Your task to perform on an android device: add a contact Image 0: 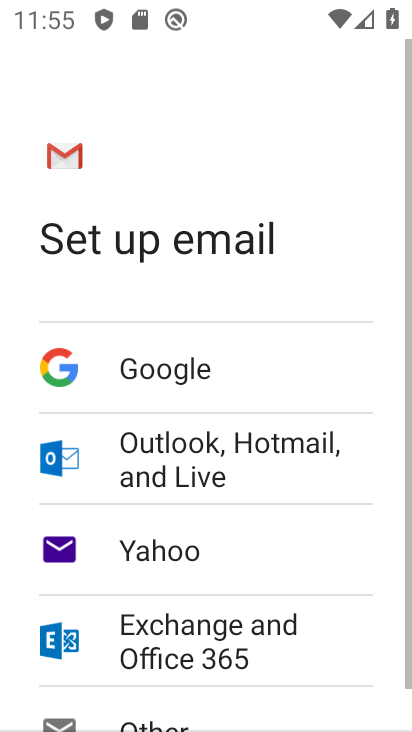
Step 0: press home button
Your task to perform on an android device: add a contact Image 1: 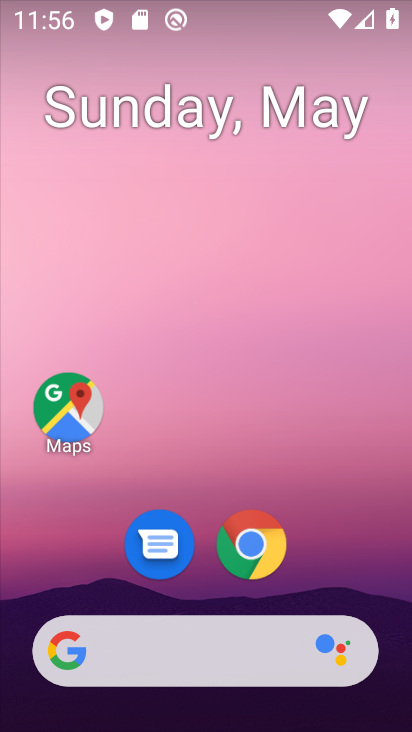
Step 1: drag from (327, 605) to (267, 109)
Your task to perform on an android device: add a contact Image 2: 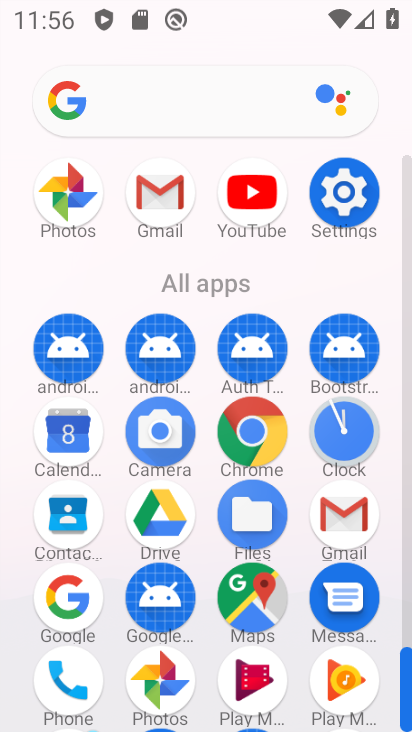
Step 2: click (68, 523)
Your task to perform on an android device: add a contact Image 3: 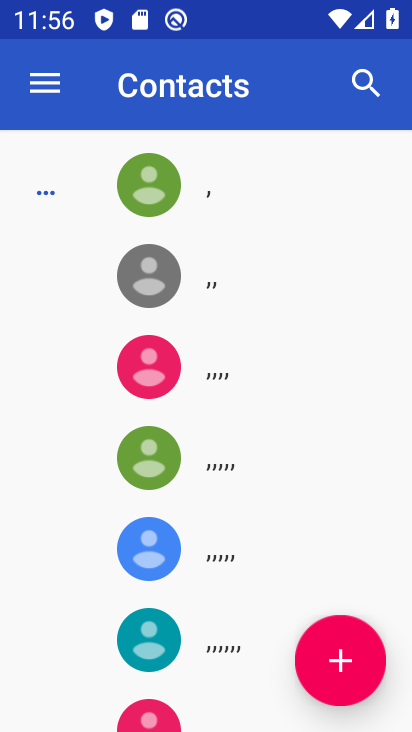
Step 3: click (351, 682)
Your task to perform on an android device: add a contact Image 4: 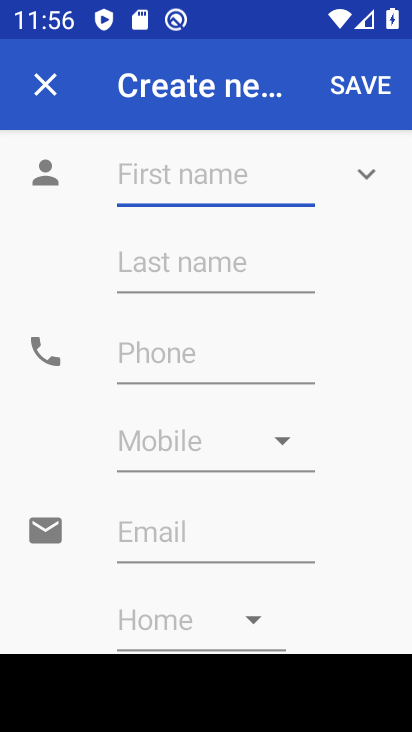
Step 4: type "sadsafasssd"
Your task to perform on an android device: add a contact Image 5: 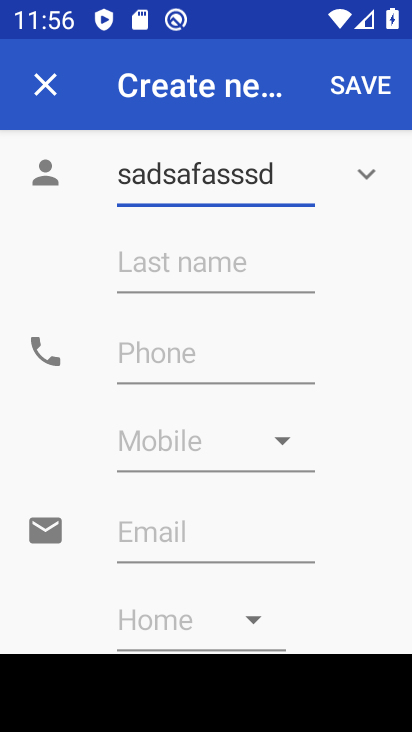
Step 5: click (236, 357)
Your task to perform on an android device: add a contact Image 6: 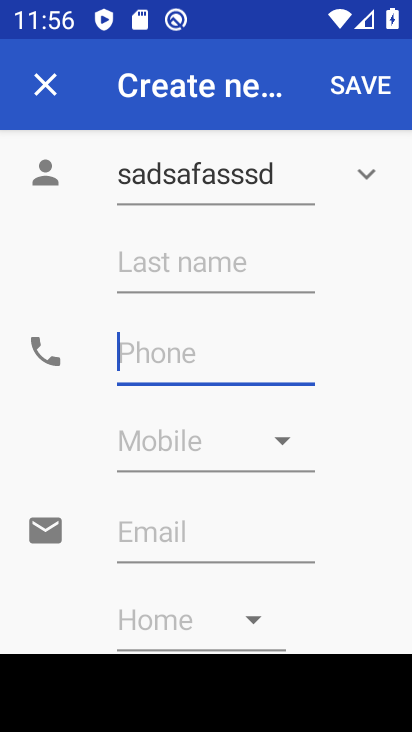
Step 6: type "98778987777"
Your task to perform on an android device: add a contact Image 7: 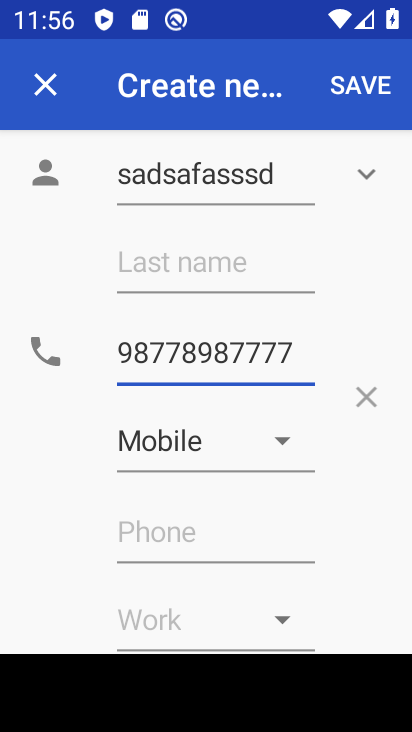
Step 7: click (357, 82)
Your task to perform on an android device: add a contact Image 8: 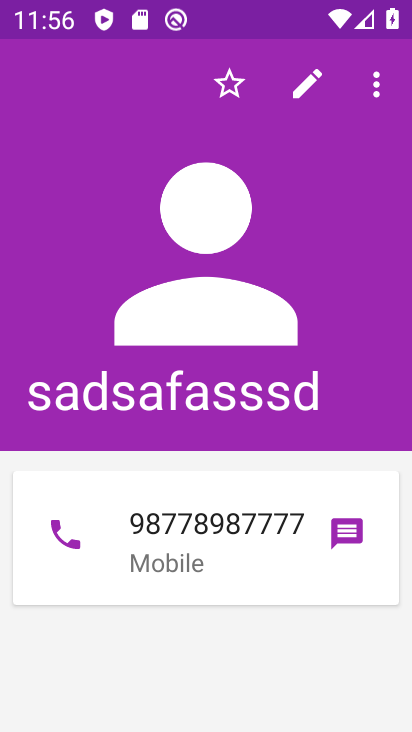
Step 8: task complete